Your task to perform on an android device: Empty the shopping cart on ebay.com. Search for jbl charge 4 on ebay.com, select the first entry, add it to the cart, then select checkout. Image 0: 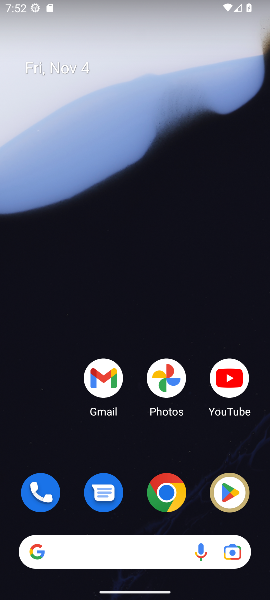
Step 0: drag from (132, 447) to (143, 5)
Your task to perform on an android device: Empty the shopping cart on ebay.com. Search for jbl charge 4 on ebay.com, select the first entry, add it to the cart, then select checkout. Image 1: 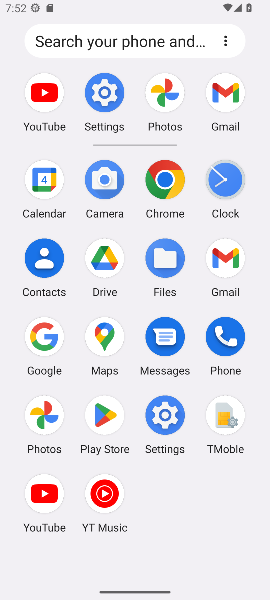
Step 1: click (175, 176)
Your task to perform on an android device: Empty the shopping cart on ebay.com. Search for jbl charge 4 on ebay.com, select the first entry, add it to the cart, then select checkout. Image 2: 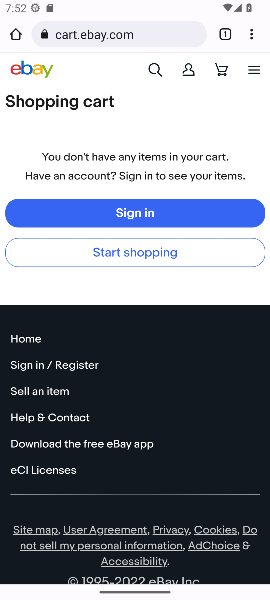
Step 2: click (113, 32)
Your task to perform on an android device: Empty the shopping cart on ebay.com. Search for jbl charge 4 on ebay.com, select the first entry, add it to the cart, then select checkout. Image 3: 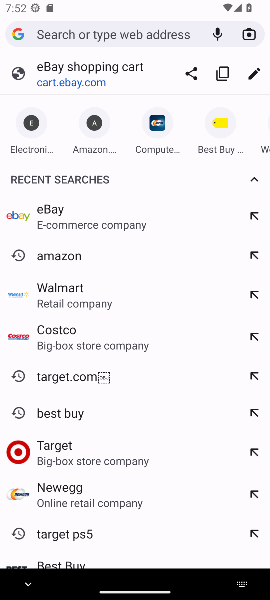
Step 3: type "ebay.com"
Your task to perform on an android device: Empty the shopping cart on ebay.com. Search for jbl charge 4 on ebay.com, select the first entry, add it to the cart, then select checkout. Image 4: 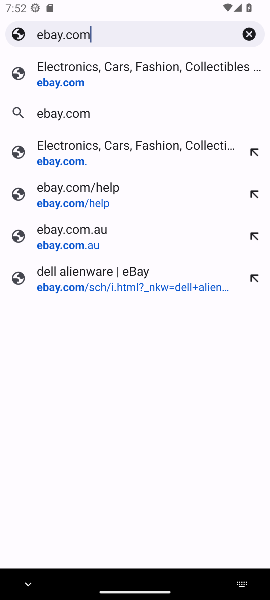
Step 4: press enter
Your task to perform on an android device: Empty the shopping cart on ebay.com. Search for jbl charge 4 on ebay.com, select the first entry, add it to the cart, then select checkout. Image 5: 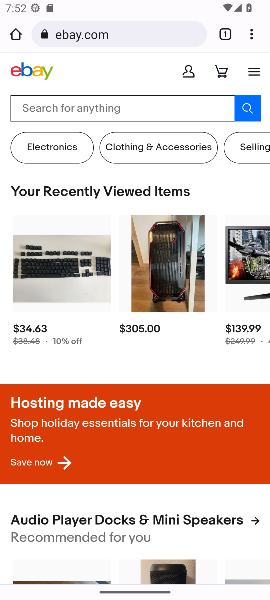
Step 5: click (220, 72)
Your task to perform on an android device: Empty the shopping cart on ebay.com. Search for jbl charge 4 on ebay.com, select the first entry, add it to the cart, then select checkout. Image 6: 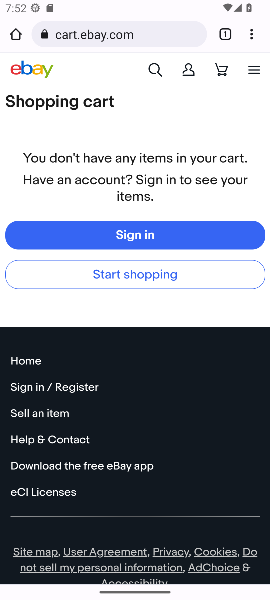
Step 6: click (156, 65)
Your task to perform on an android device: Empty the shopping cart on ebay.com. Search for jbl charge 4 on ebay.com, select the first entry, add it to the cart, then select checkout. Image 7: 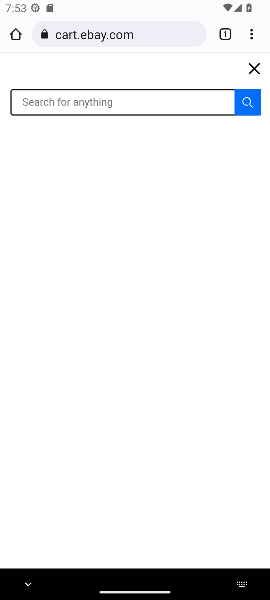
Step 7: type "jbl charge 4"
Your task to perform on an android device: Empty the shopping cart on ebay.com. Search for jbl charge 4 on ebay.com, select the first entry, add it to the cart, then select checkout. Image 8: 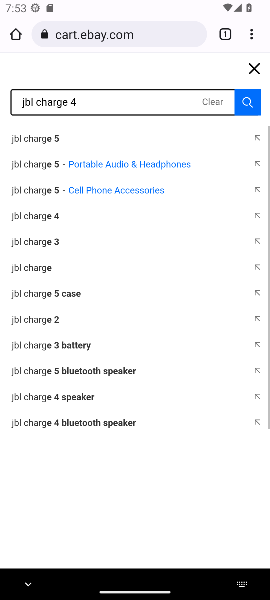
Step 8: press enter
Your task to perform on an android device: Empty the shopping cart on ebay.com. Search for jbl charge 4 on ebay.com, select the first entry, add it to the cart, then select checkout. Image 9: 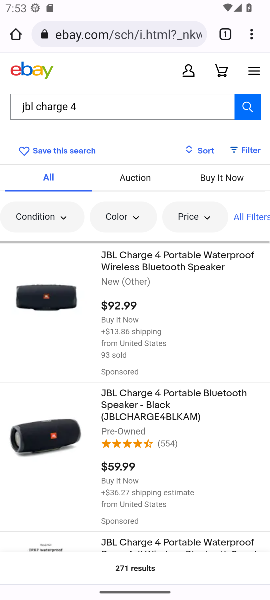
Step 9: click (204, 266)
Your task to perform on an android device: Empty the shopping cart on ebay.com. Search for jbl charge 4 on ebay.com, select the first entry, add it to the cart, then select checkout. Image 10: 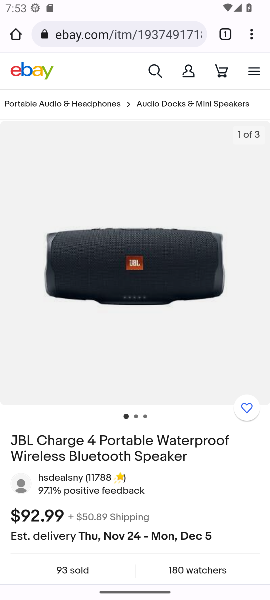
Step 10: drag from (191, 373) to (206, 66)
Your task to perform on an android device: Empty the shopping cart on ebay.com. Search for jbl charge 4 on ebay.com, select the first entry, add it to the cart, then select checkout. Image 11: 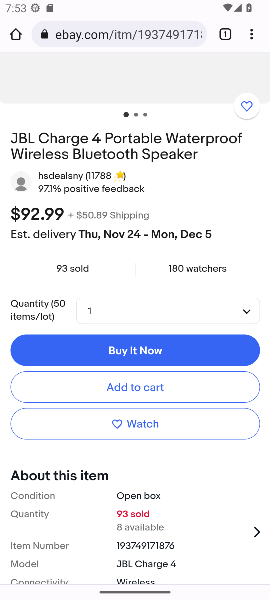
Step 11: click (193, 391)
Your task to perform on an android device: Empty the shopping cart on ebay.com. Search for jbl charge 4 on ebay.com, select the first entry, add it to the cart, then select checkout. Image 12: 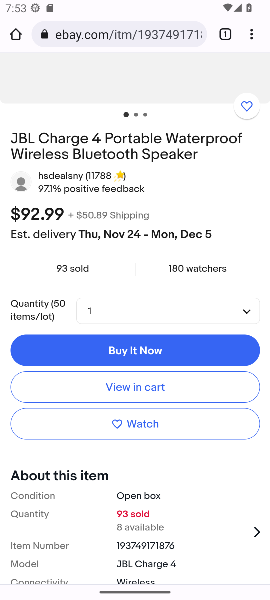
Step 12: click (166, 391)
Your task to perform on an android device: Empty the shopping cart on ebay.com. Search for jbl charge 4 on ebay.com, select the first entry, add it to the cart, then select checkout. Image 13: 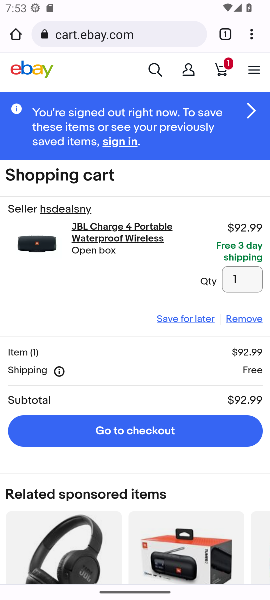
Step 13: click (181, 434)
Your task to perform on an android device: Empty the shopping cart on ebay.com. Search for jbl charge 4 on ebay.com, select the first entry, add it to the cart, then select checkout. Image 14: 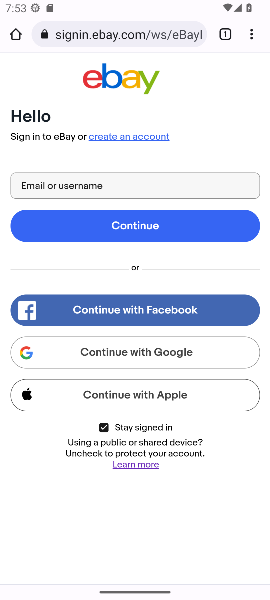
Step 14: task complete